Your task to perform on an android device: Go to Wikipedia Image 0: 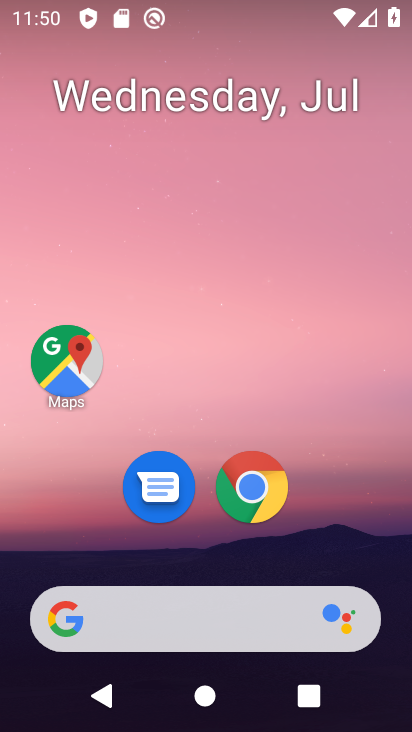
Step 0: drag from (196, 585) to (231, 57)
Your task to perform on an android device: Go to Wikipedia Image 1: 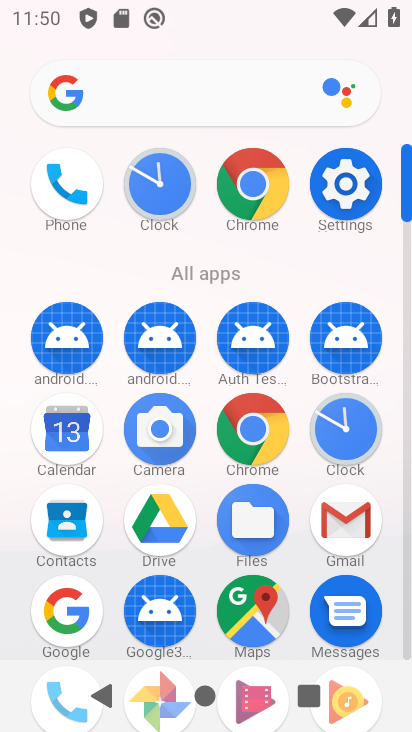
Step 1: press home button
Your task to perform on an android device: Go to Wikipedia Image 2: 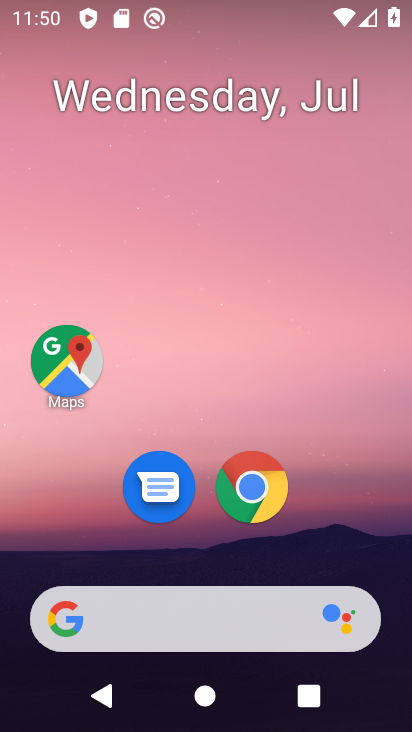
Step 2: drag from (217, 585) to (222, 172)
Your task to perform on an android device: Go to Wikipedia Image 3: 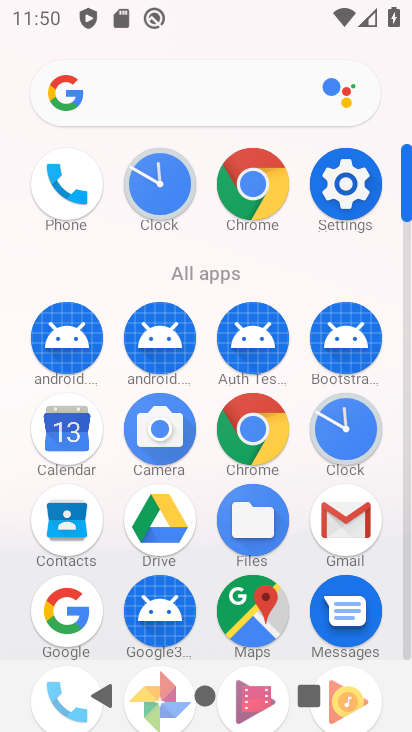
Step 3: click (266, 200)
Your task to perform on an android device: Go to Wikipedia Image 4: 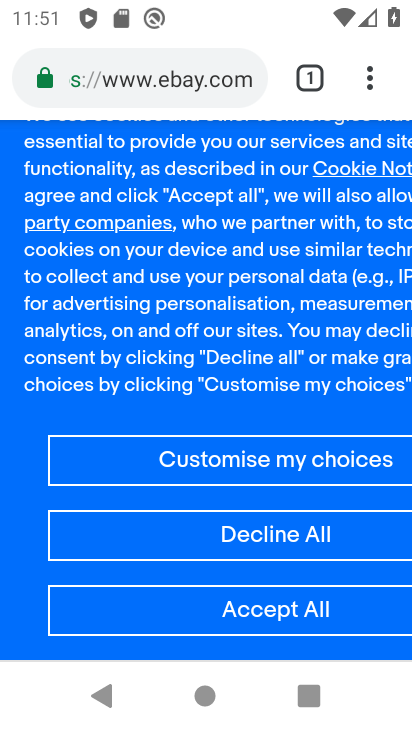
Step 4: click (225, 76)
Your task to perform on an android device: Go to Wikipedia Image 5: 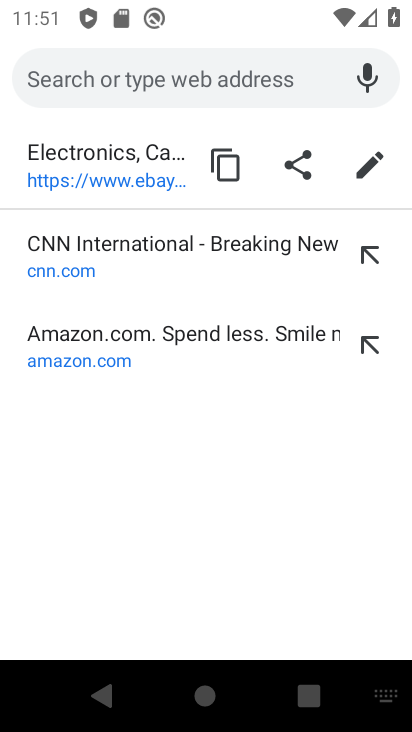
Step 5: type "wikipedia"
Your task to perform on an android device: Go to Wikipedia Image 6: 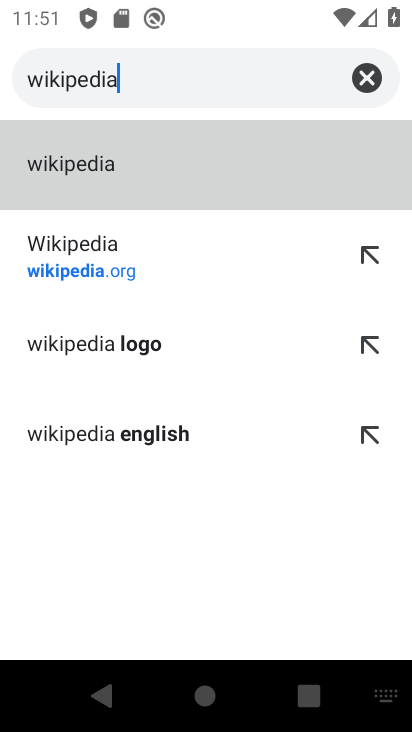
Step 6: click (169, 274)
Your task to perform on an android device: Go to Wikipedia Image 7: 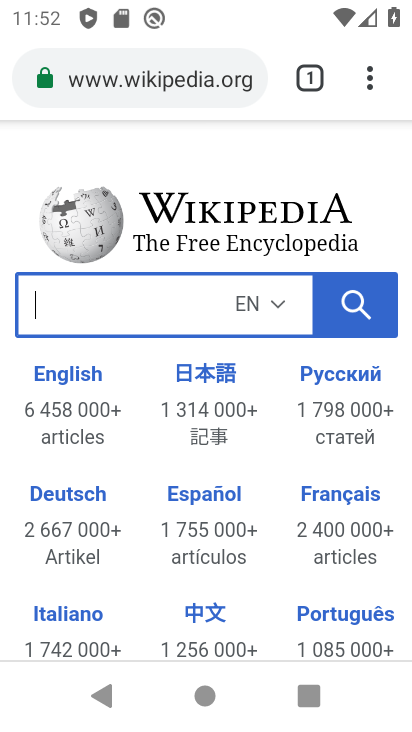
Step 7: task complete